Your task to perform on an android device: turn off javascript in the chrome app Image 0: 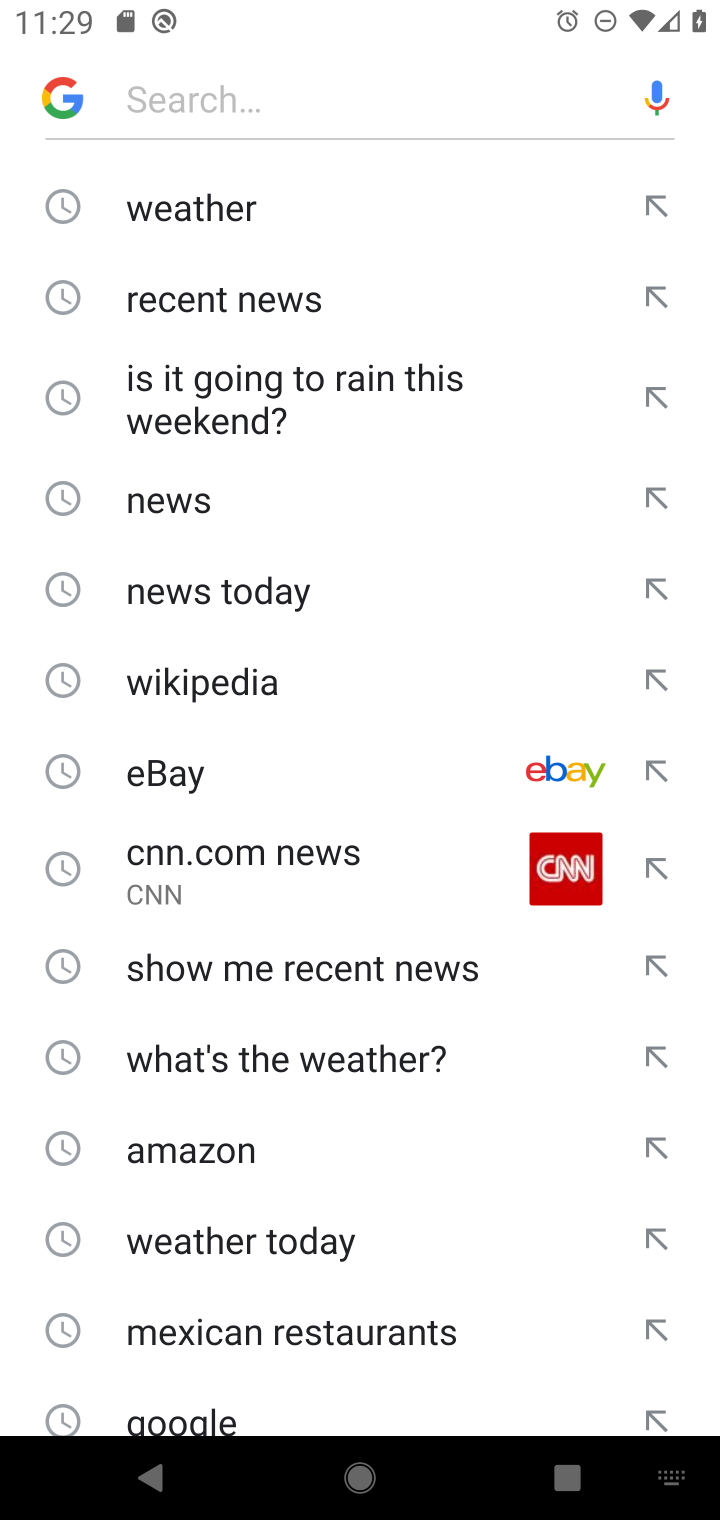
Step 0: click (437, 206)
Your task to perform on an android device: turn off javascript in the chrome app Image 1: 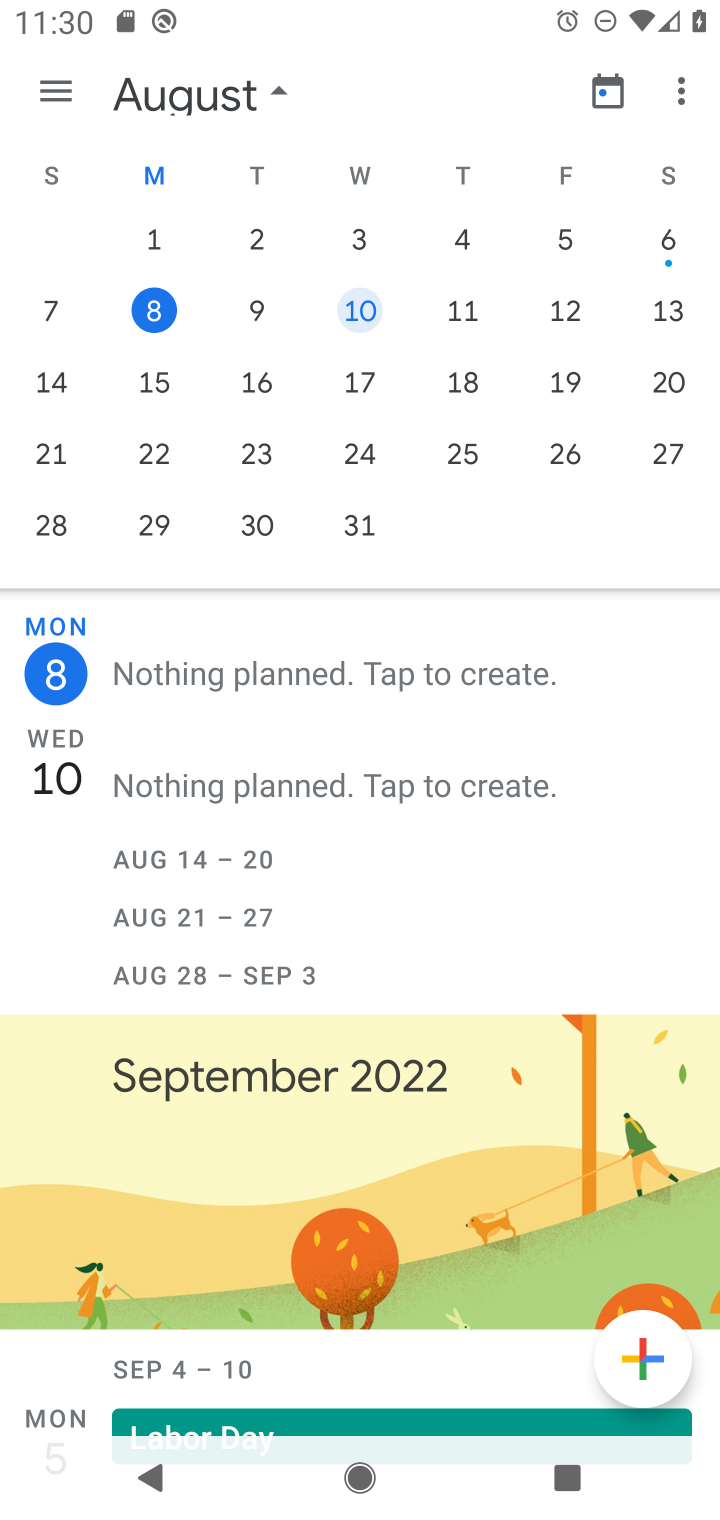
Step 1: press home button
Your task to perform on an android device: turn off javascript in the chrome app Image 2: 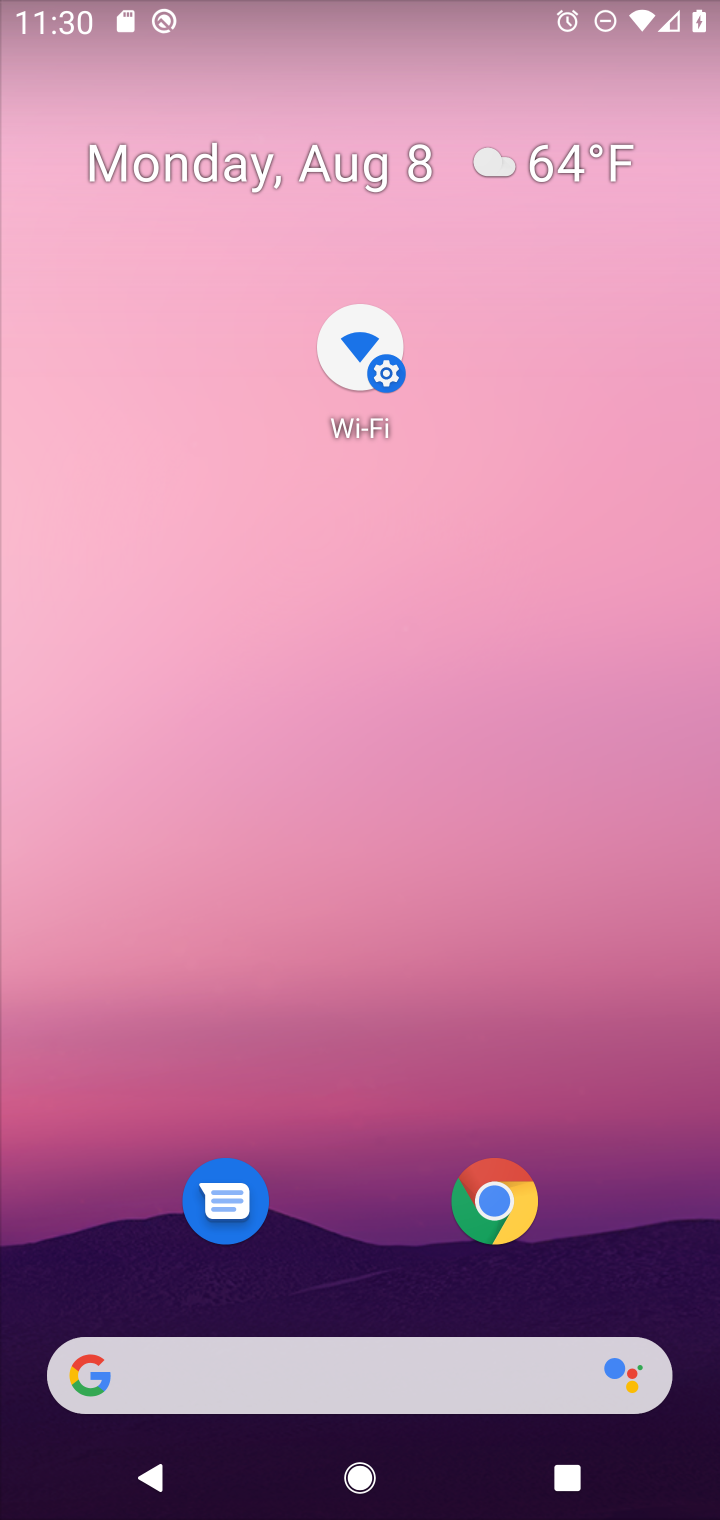
Step 2: drag from (384, 1234) to (510, 336)
Your task to perform on an android device: turn off javascript in the chrome app Image 3: 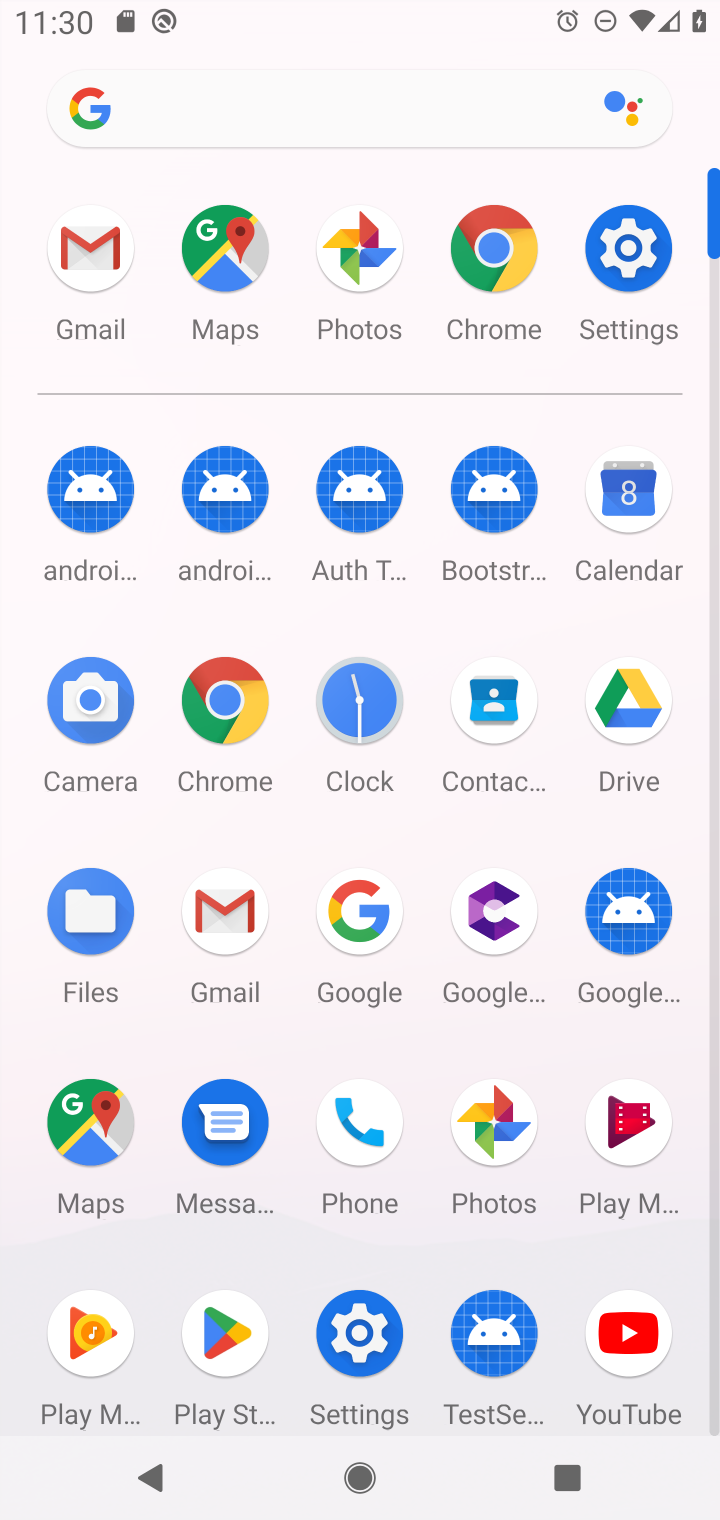
Step 3: click (231, 702)
Your task to perform on an android device: turn off javascript in the chrome app Image 4: 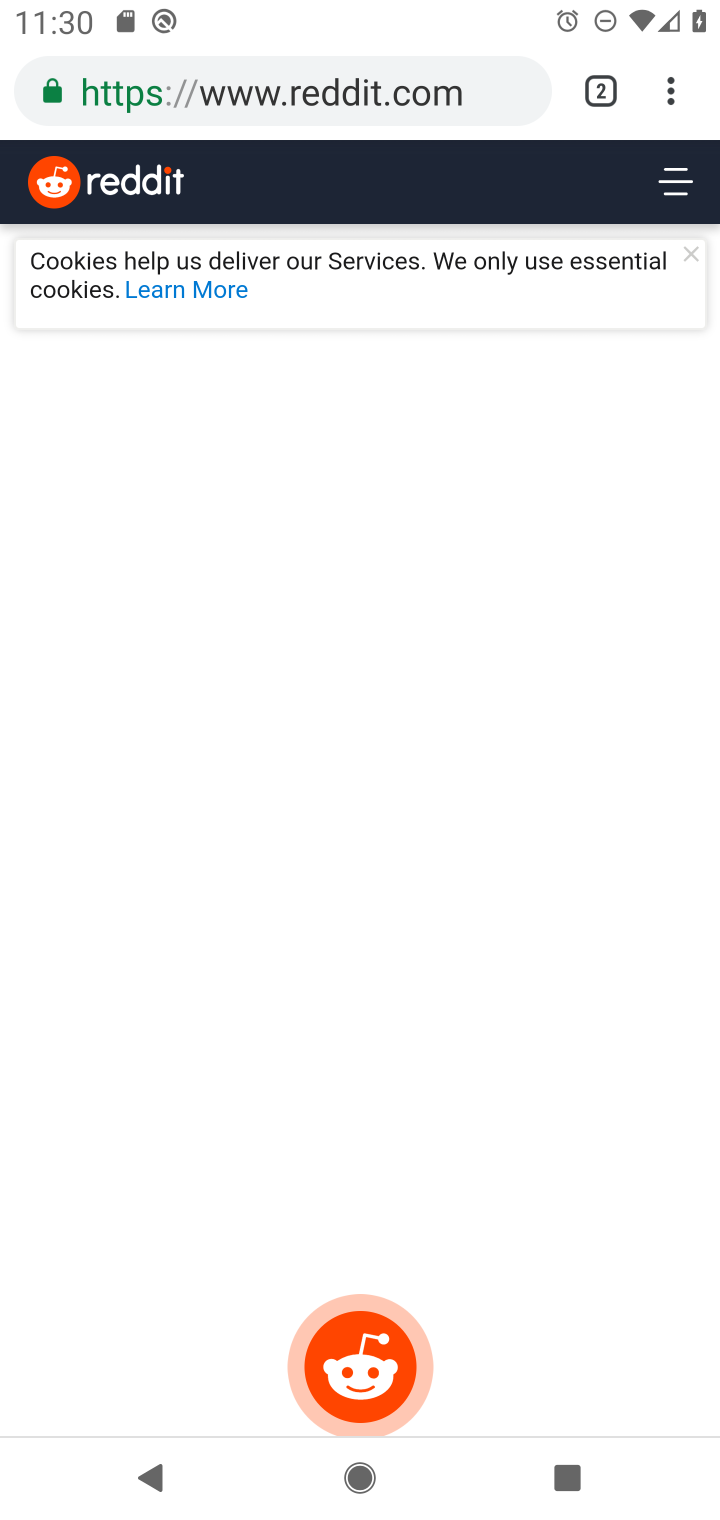
Step 4: click (677, 91)
Your task to perform on an android device: turn off javascript in the chrome app Image 5: 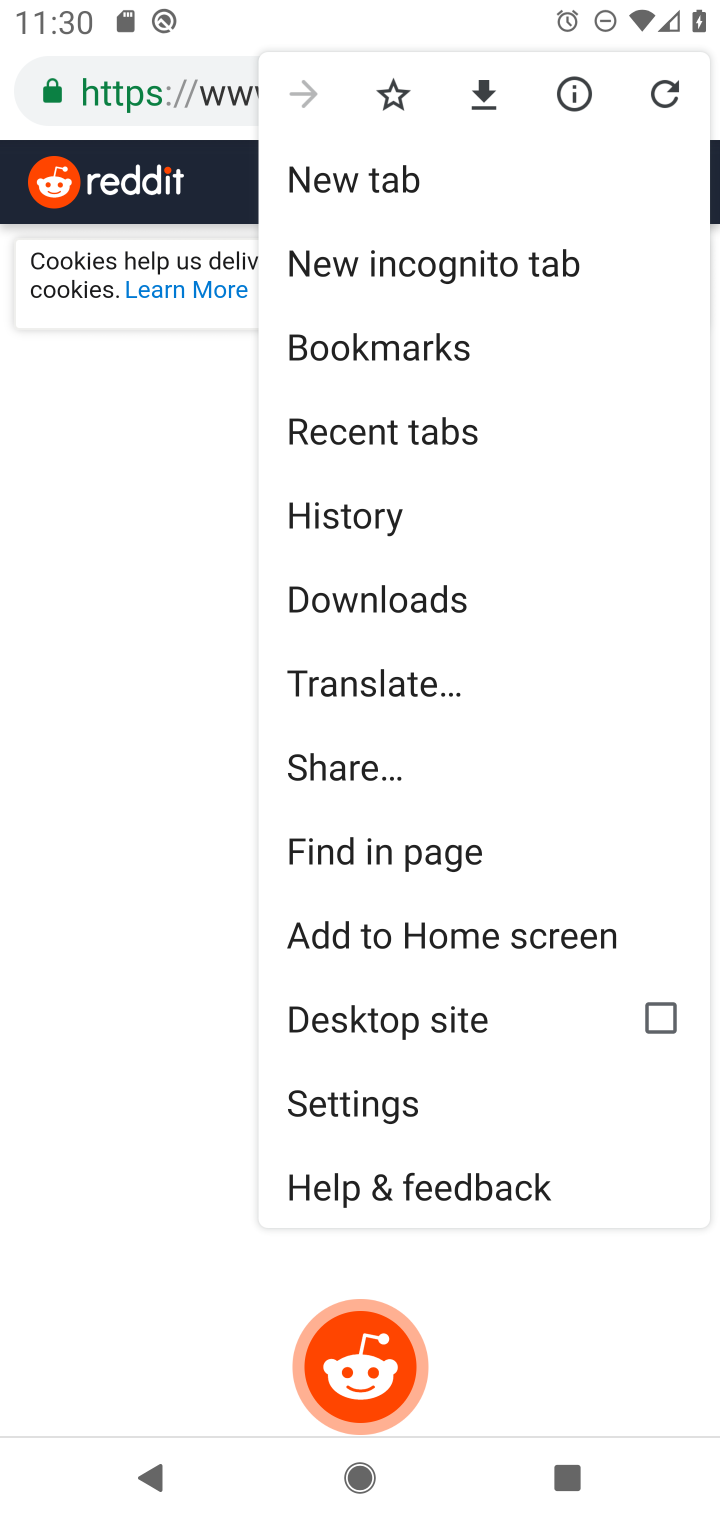
Step 5: click (482, 1102)
Your task to perform on an android device: turn off javascript in the chrome app Image 6: 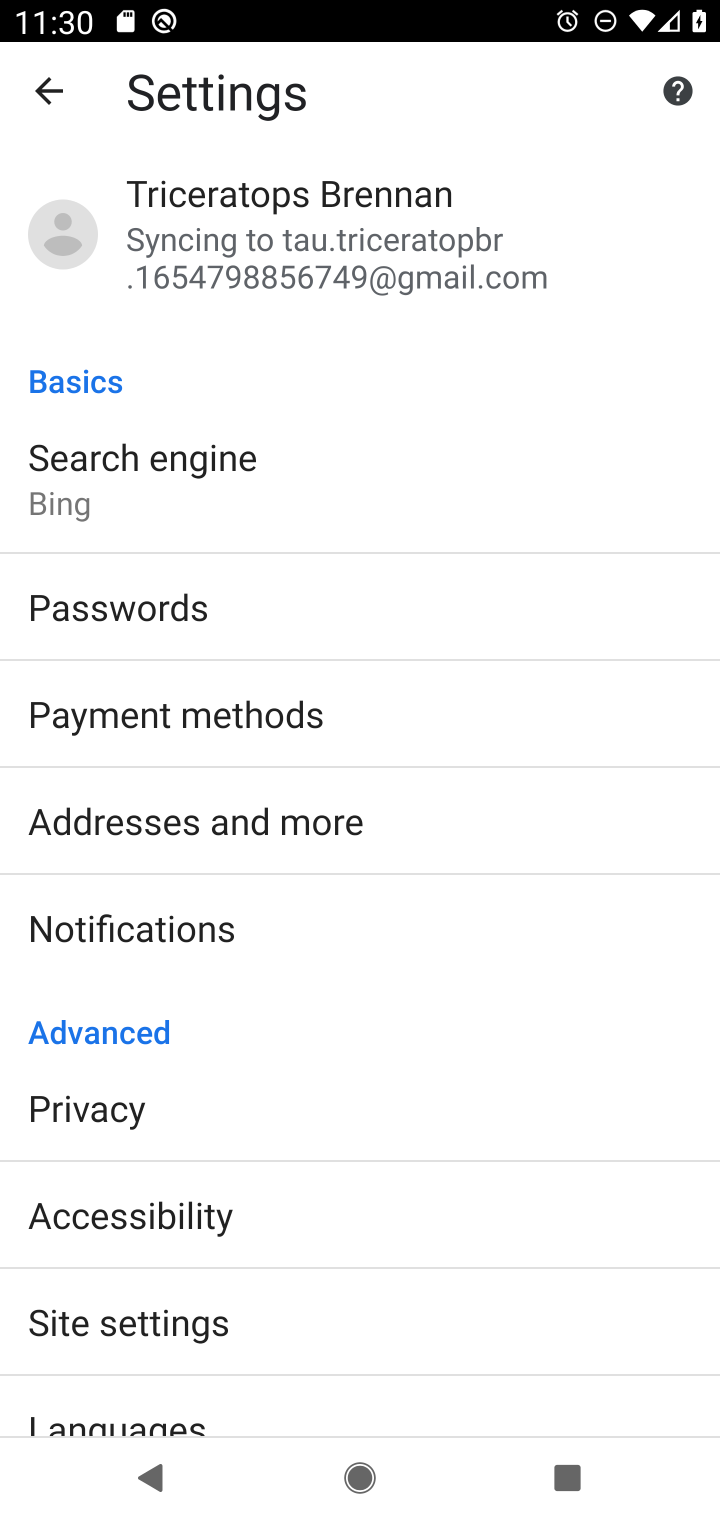
Step 6: drag from (528, 1113) to (511, 843)
Your task to perform on an android device: turn off javascript in the chrome app Image 7: 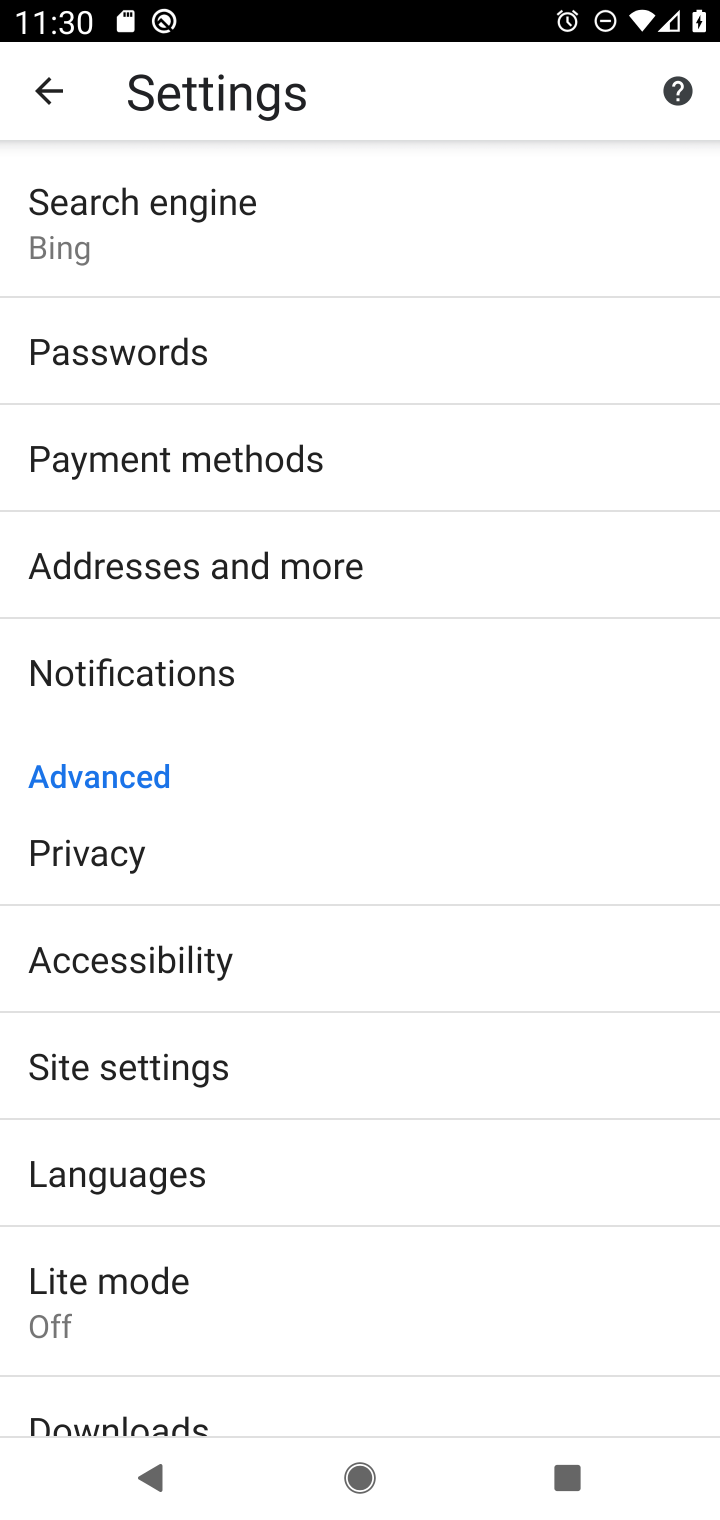
Step 7: drag from (477, 1090) to (470, 736)
Your task to perform on an android device: turn off javascript in the chrome app Image 8: 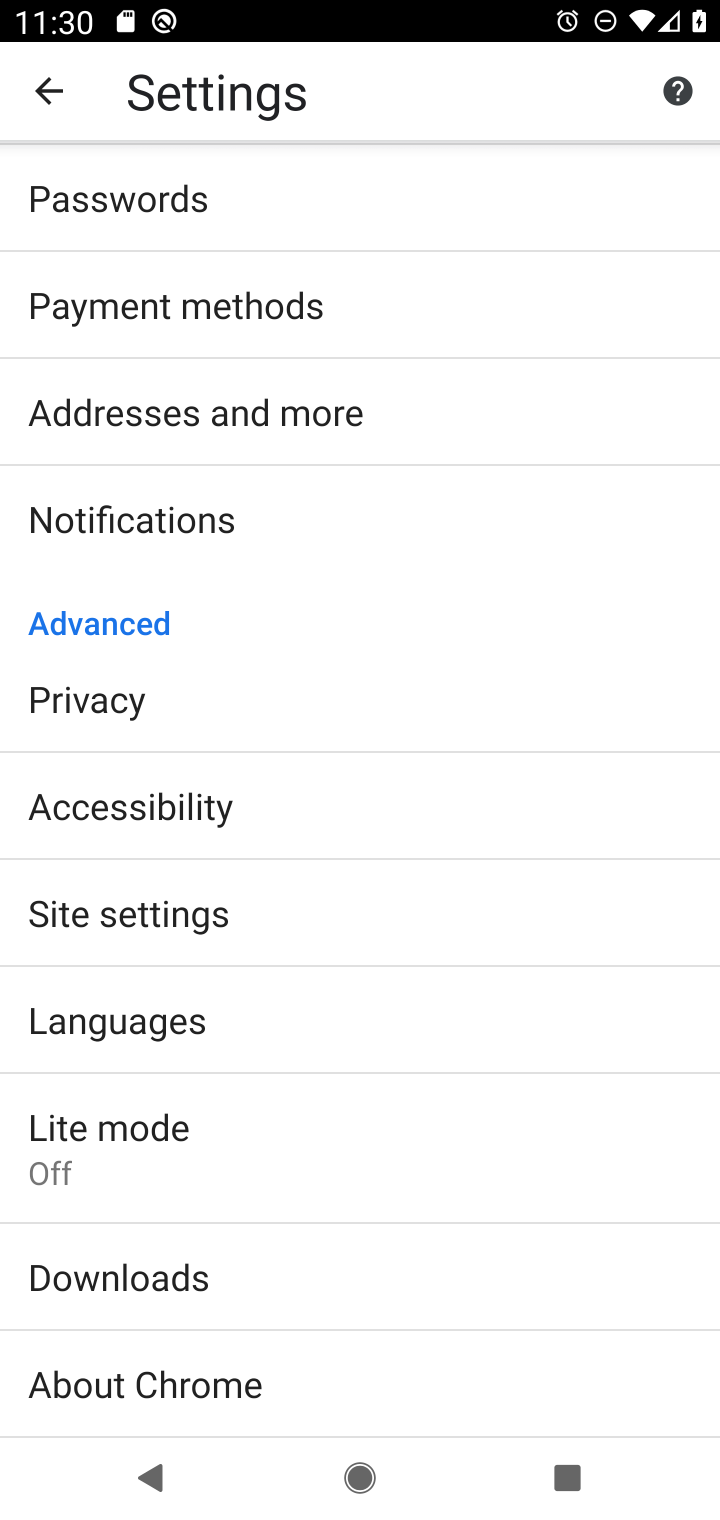
Step 8: click (451, 910)
Your task to perform on an android device: turn off javascript in the chrome app Image 9: 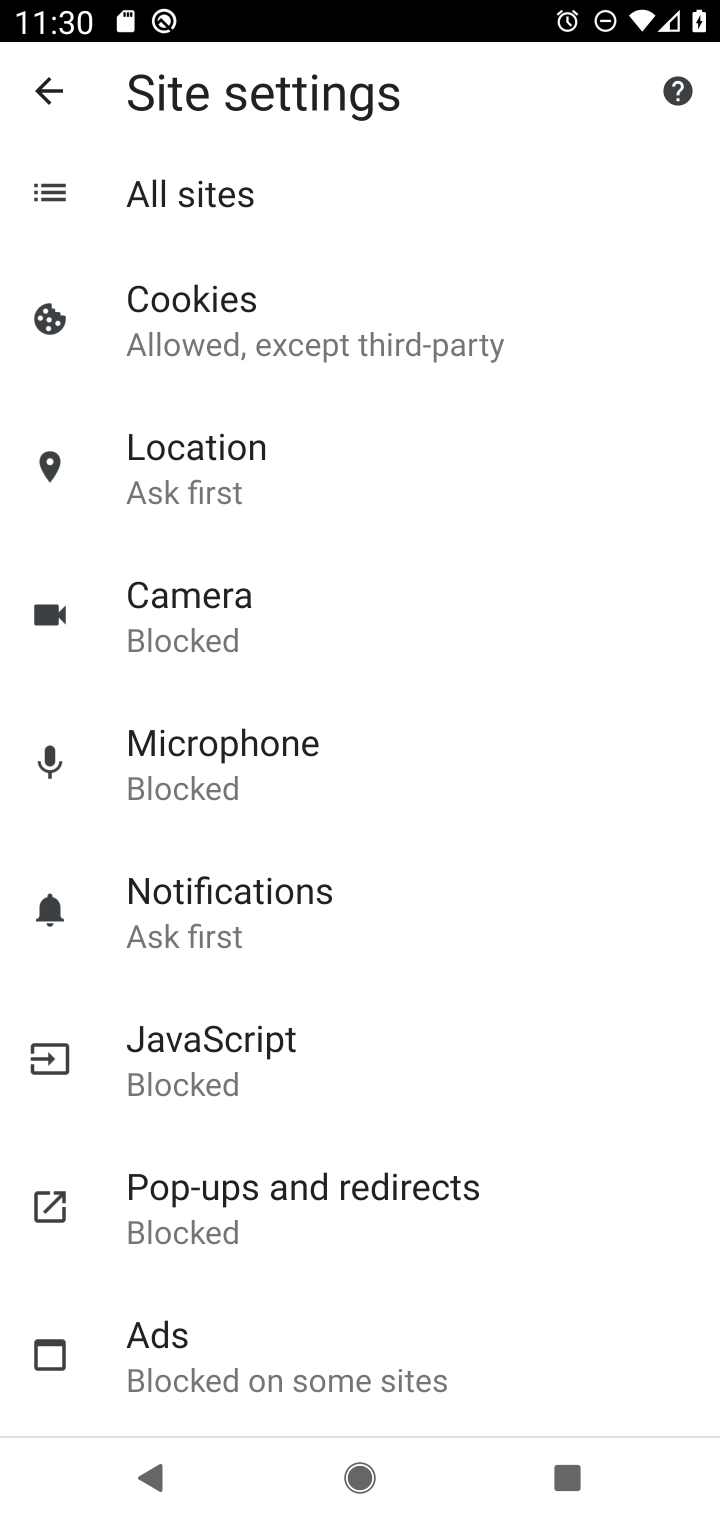
Step 9: drag from (464, 1018) to (497, 706)
Your task to perform on an android device: turn off javascript in the chrome app Image 10: 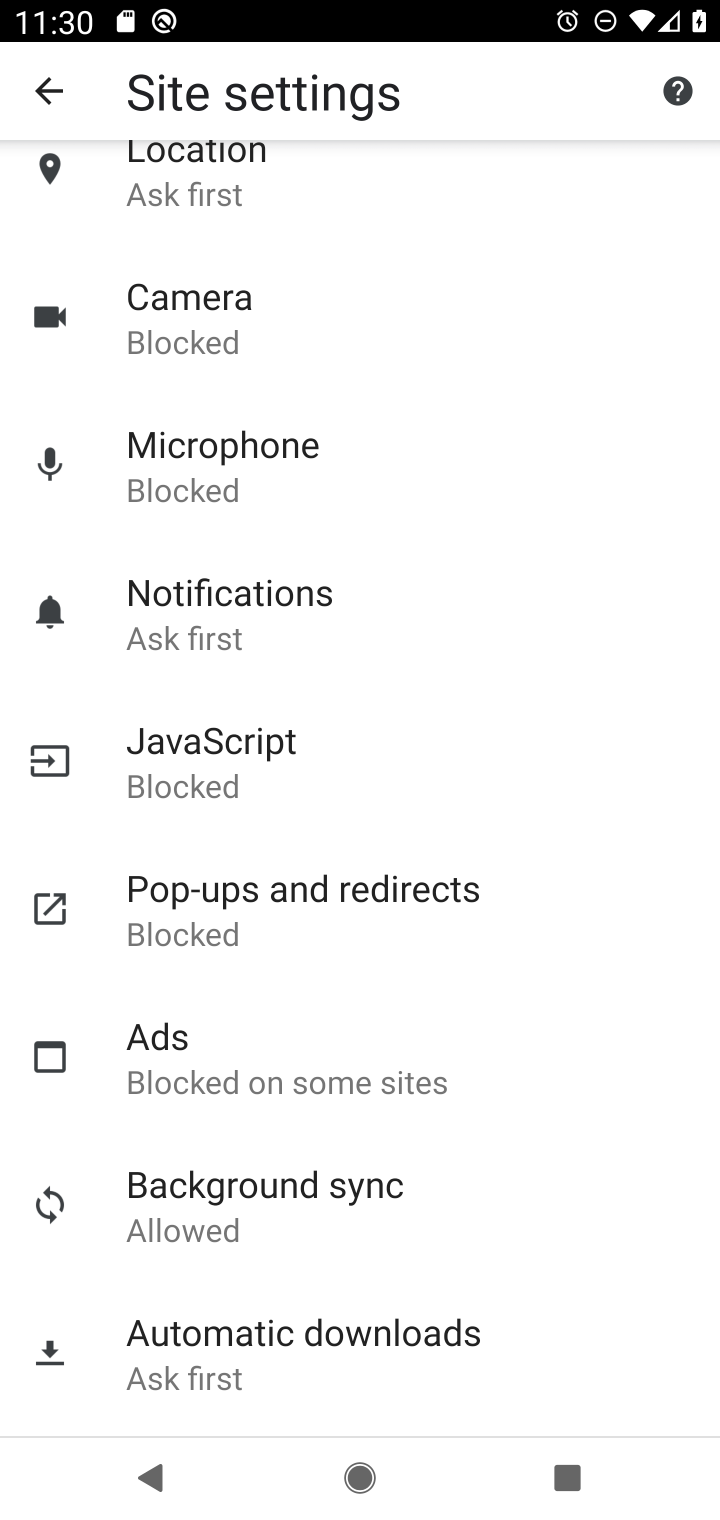
Step 10: drag from (509, 1056) to (520, 781)
Your task to perform on an android device: turn off javascript in the chrome app Image 11: 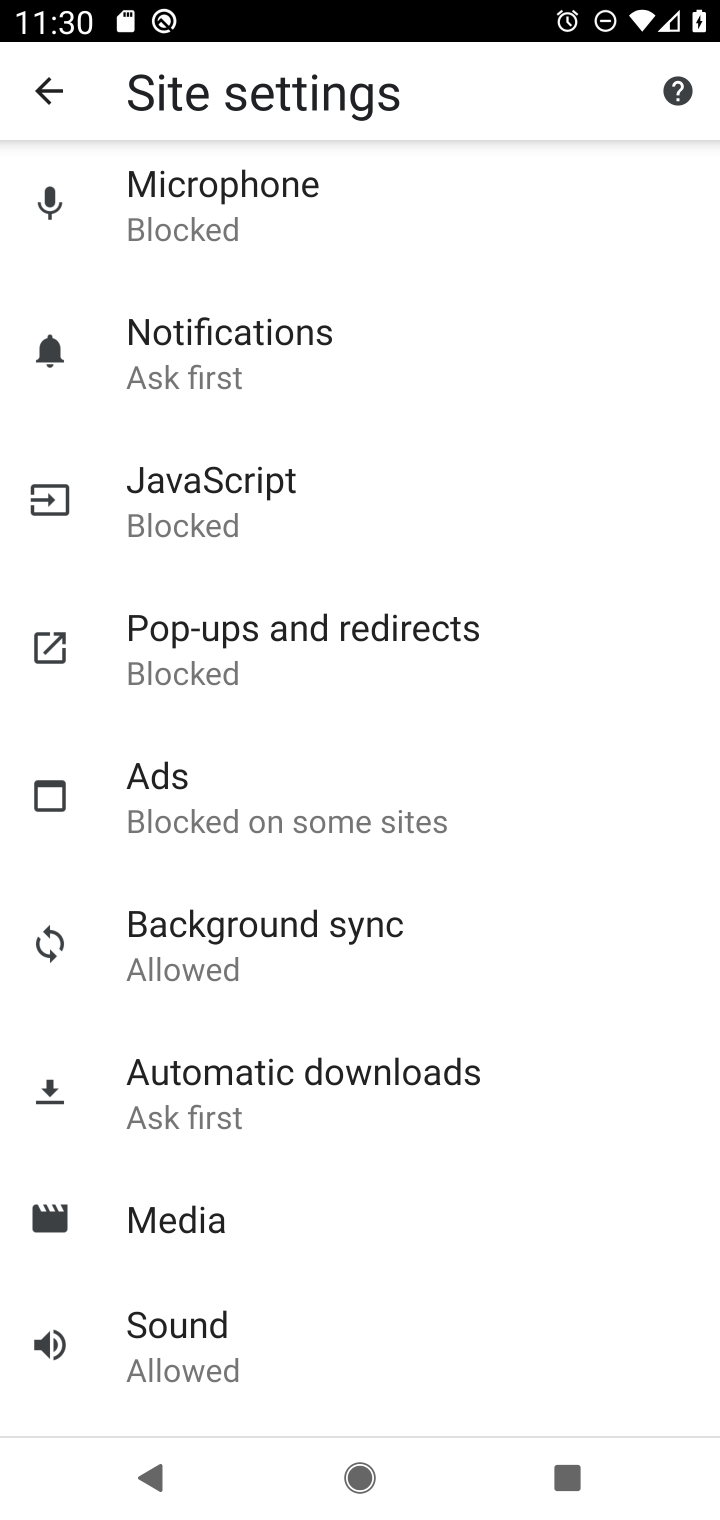
Step 11: click (288, 517)
Your task to perform on an android device: turn off javascript in the chrome app Image 12: 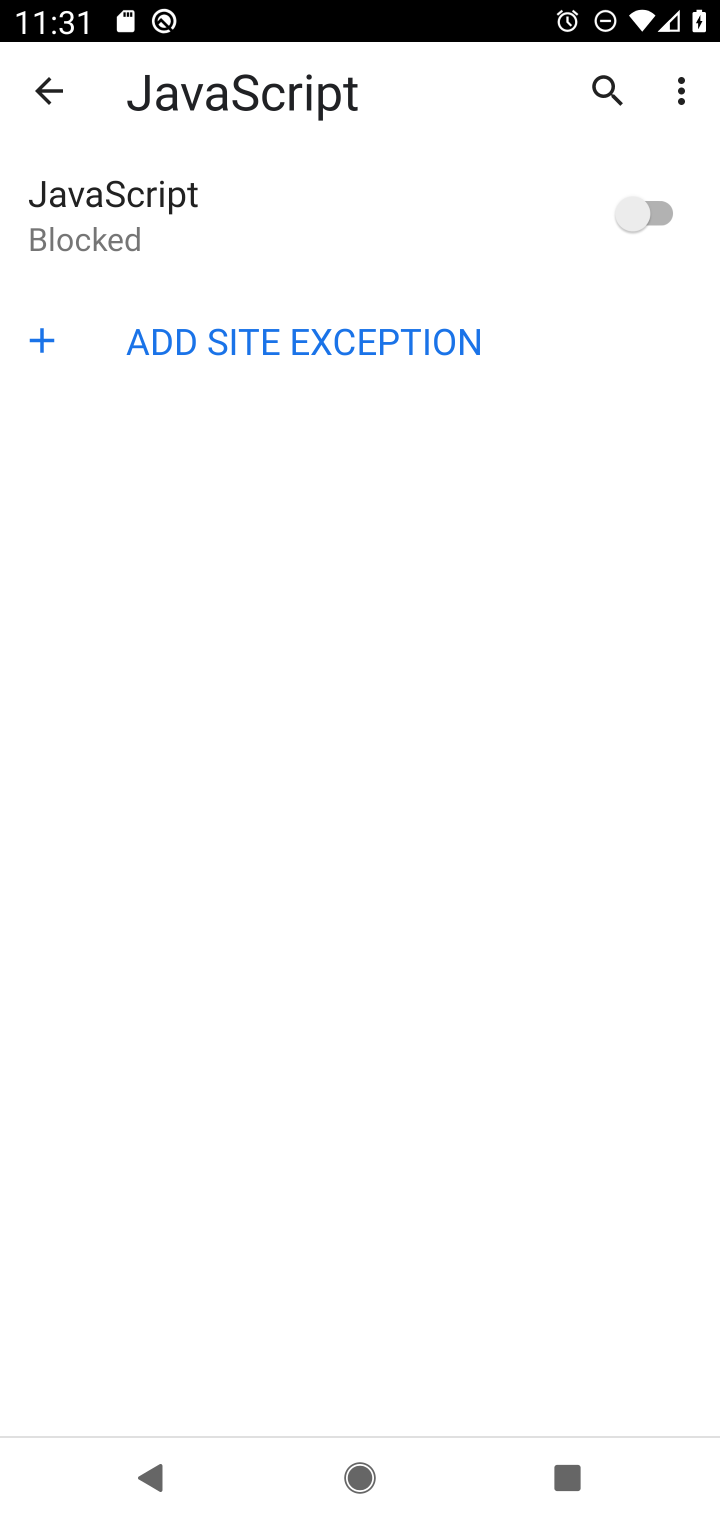
Step 12: task complete